Your task to perform on an android device: Go to wifi settings Image 0: 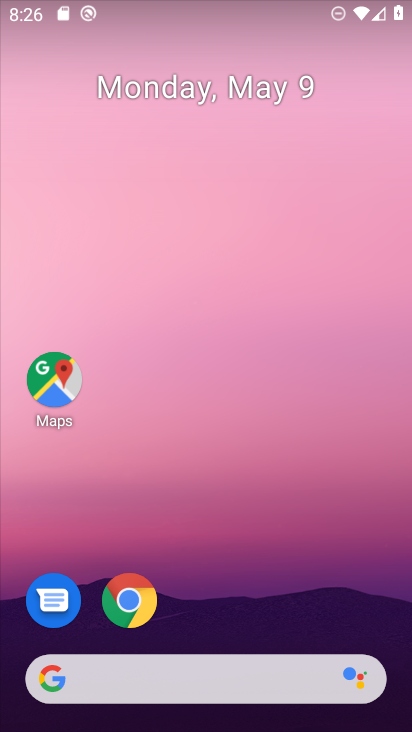
Step 0: drag from (206, 560) to (229, 6)
Your task to perform on an android device: Go to wifi settings Image 1: 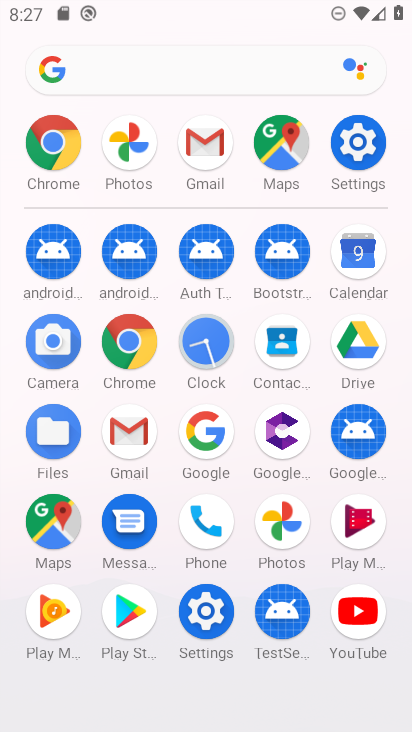
Step 1: drag from (4, 447) to (12, 254)
Your task to perform on an android device: Go to wifi settings Image 2: 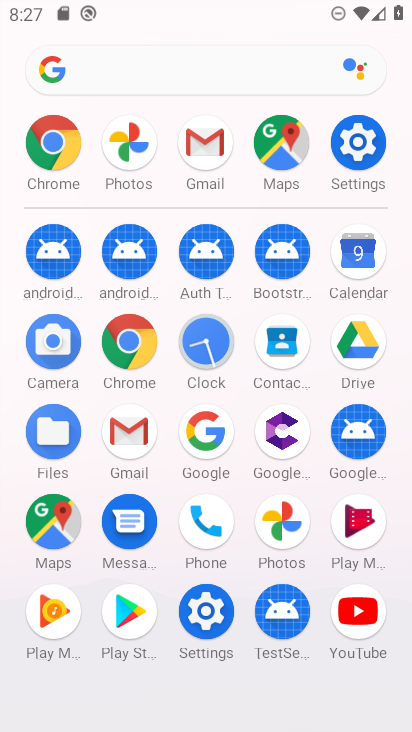
Step 2: click (204, 607)
Your task to perform on an android device: Go to wifi settings Image 3: 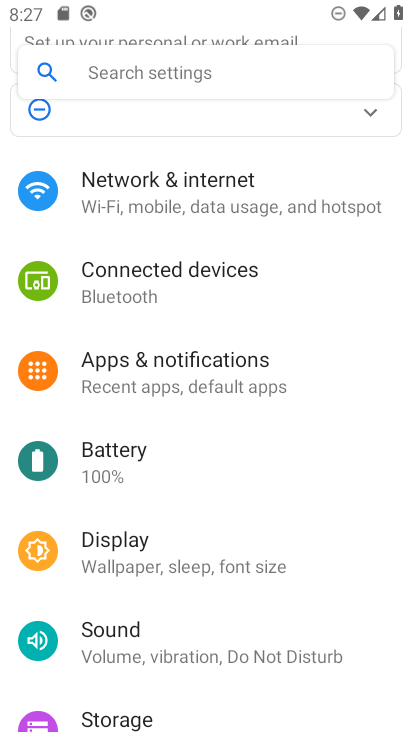
Step 3: click (220, 194)
Your task to perform on an android device: Go to wifi settings Image 4: 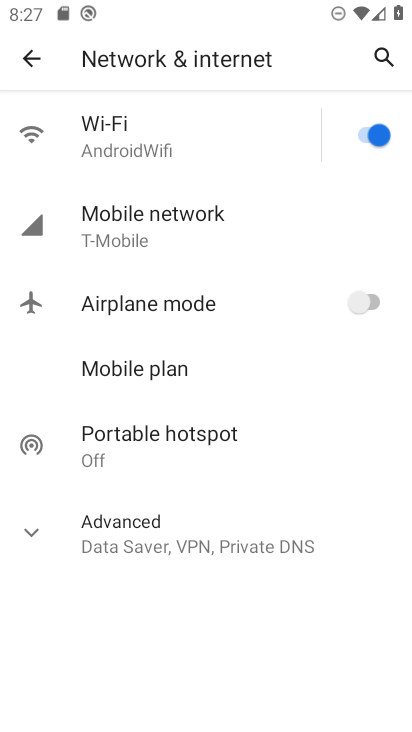
Step 4: click (143, 125)
Your task to perform on an android device: Go to wifi settings Image 5: 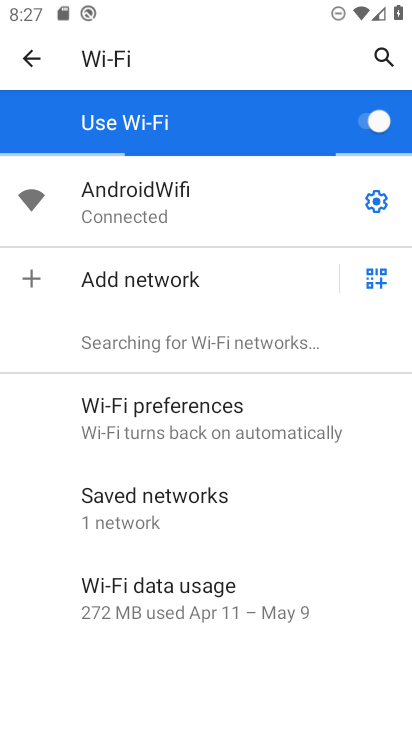
Step 5: task complete